Your task to perform on an android device: change timer sound Image 0: 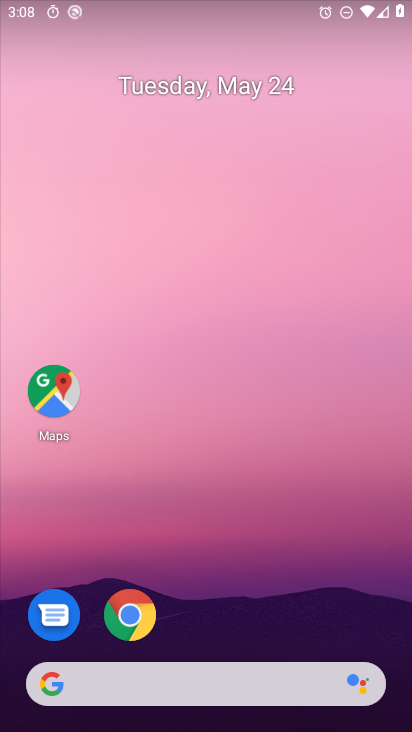
Step 0: drag from (231, 651) to (263, 168)
Your task to perform on an android device: change timer sound Image 1: 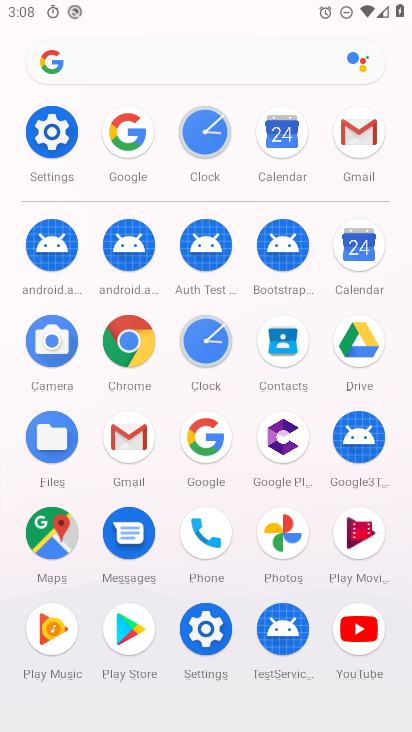
Step 1: click (212, 346)
Your task to perform on an android device: change timer sound Image 2: 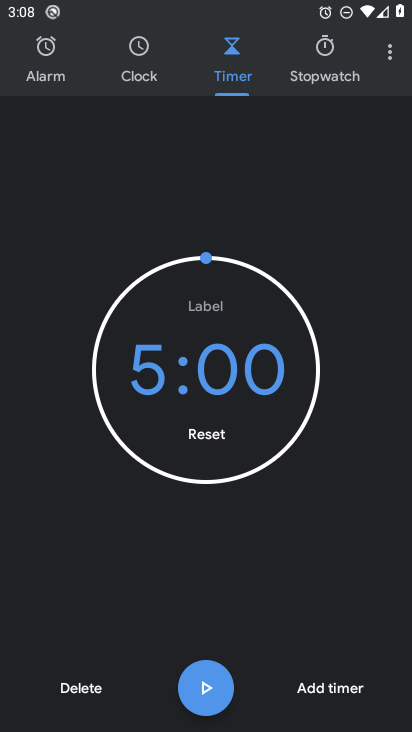
Step 2: click (394, 52)
Your task to perform on an android device: change timer sound Image 3: 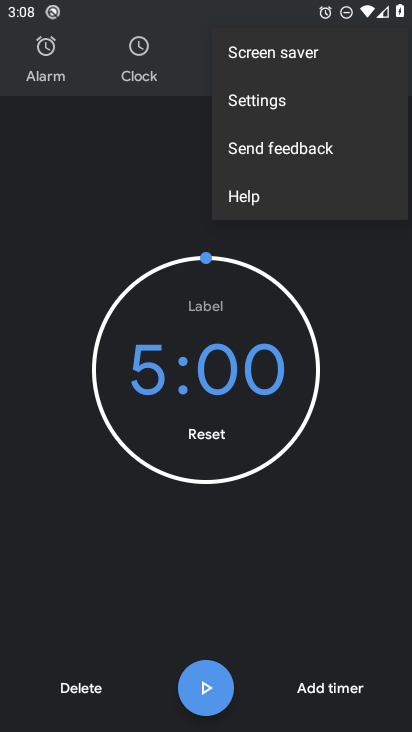
Step 3: click (263, 99)
Your task to perform on an android device: change timer sound Image 4: 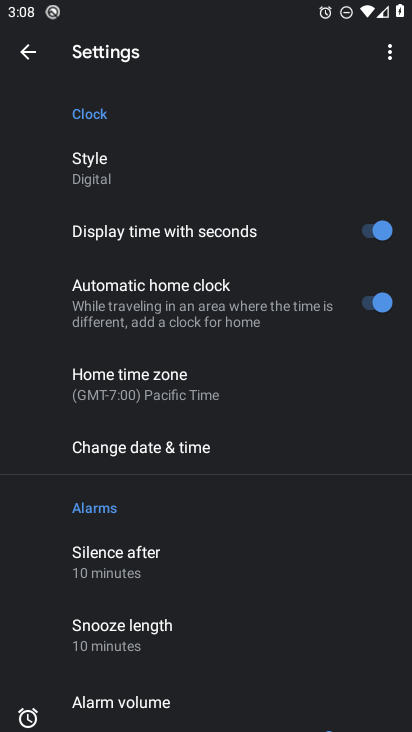
Step 4: drag from (124, 698) to (118, 326)
Your task to perform on an android device: change timer sound Image 5: 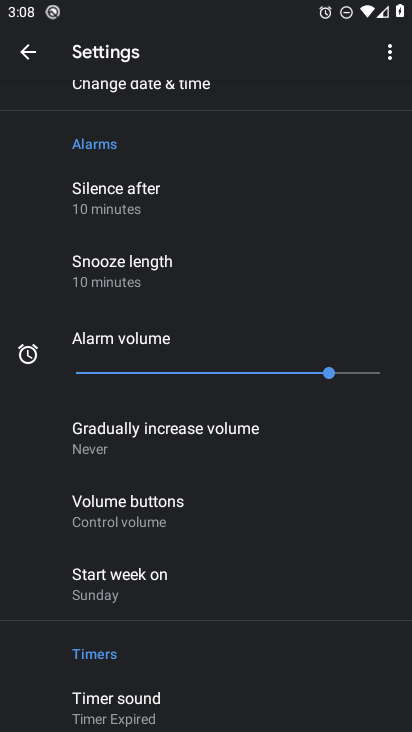
Step 5: drag from (142, 595) to (139, 270)
Your task to perform on an android device: change timer sound Image 6: 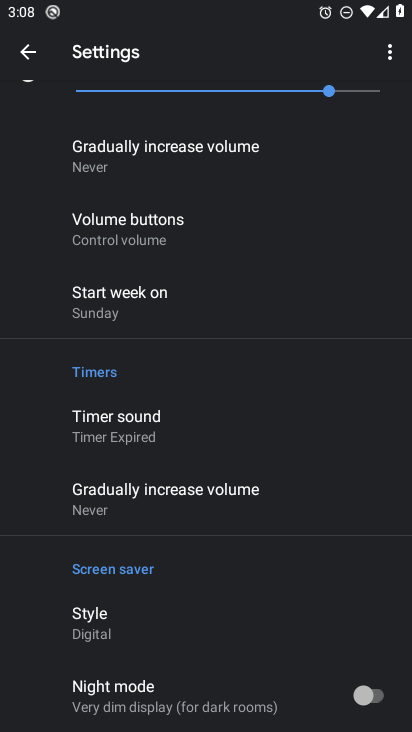
Step 6: drag from (132, 624) to (147, 248)
Your task to perform on an android device: change timer sound Image 7: 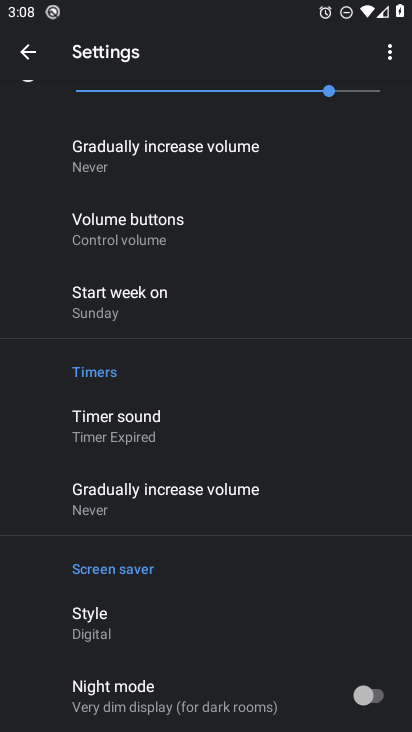
Step 7: drag from (140, 710) to (140, 476)
Your task to perform on an android device: change timer sound Image 8: 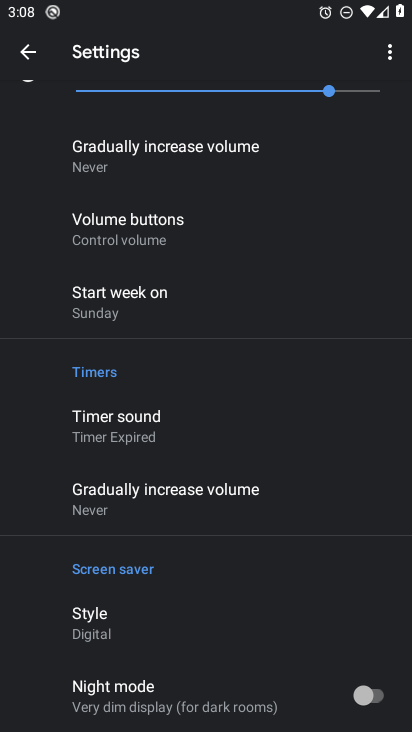
Step 8: drag from (189, 203) to (196, 582)
Your task to perform on an android device: change timer sound Image 9: 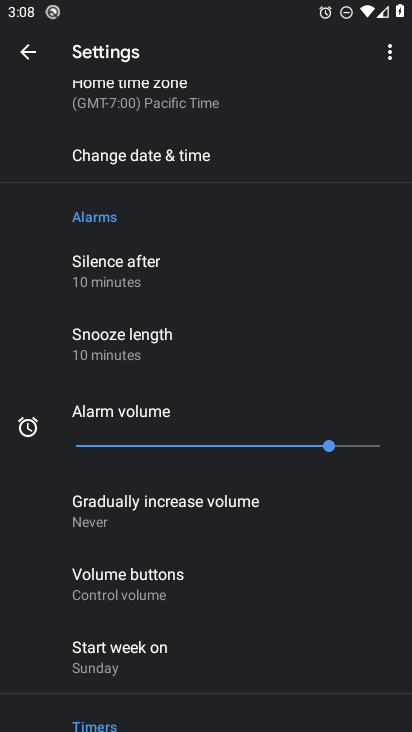
Step 9: drag from (218, 279) to (196, 553)
Your task to perform on an android device: change timer sound Image 10: 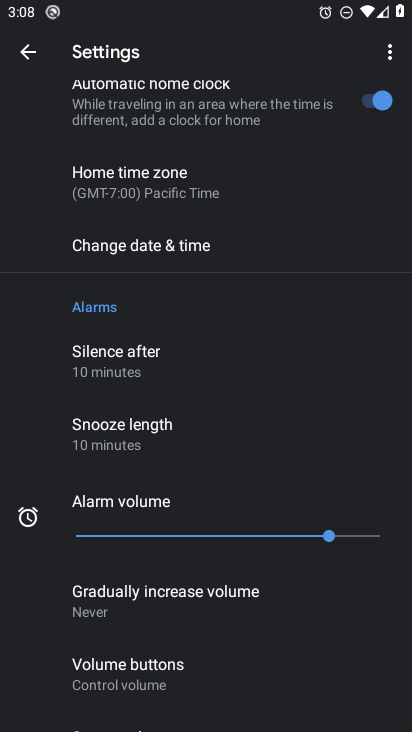
Step 10: drag from (220, 157) to (229, 602)
Your task to perform on an android device: change timer sound Image 11: 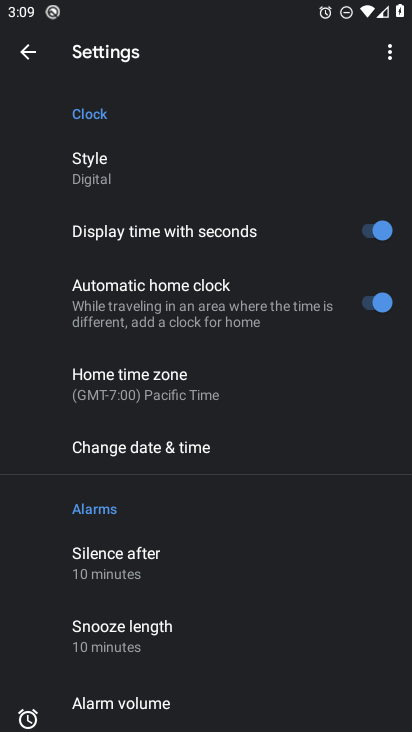
Step 11: drag from (175, 678) to (163, 338)
Your task to perform on an android device: change timer sound Image 12: 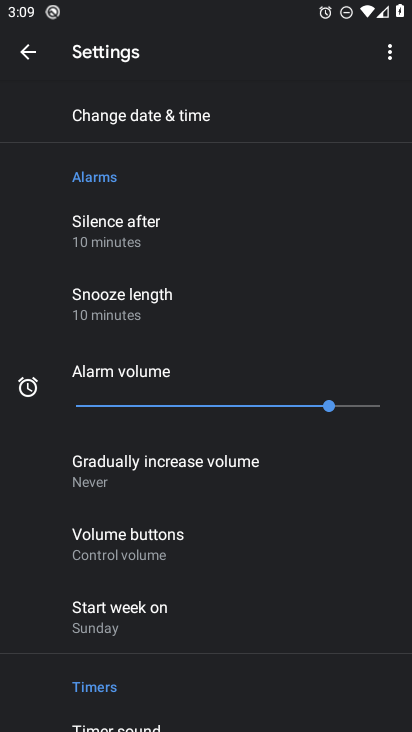
Step 12: drag from (143, 668) to (150, 372)
Your task to perform on an android device: change timer sound Image 13: 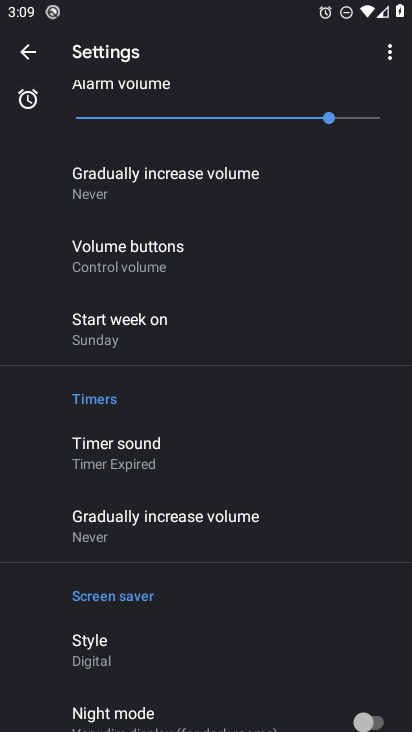
Step 13: click (135, 444)
Your task to perform on an android device: change timer sound Image 14: 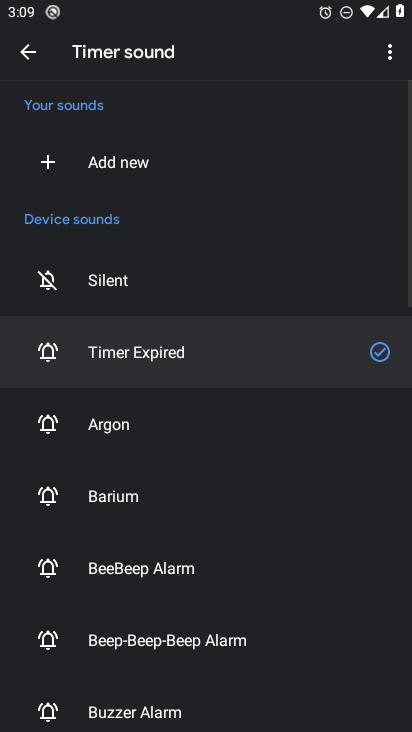
Step 14: click (127, 428)
Your task to perform on an android device: change timer sound Image 15: 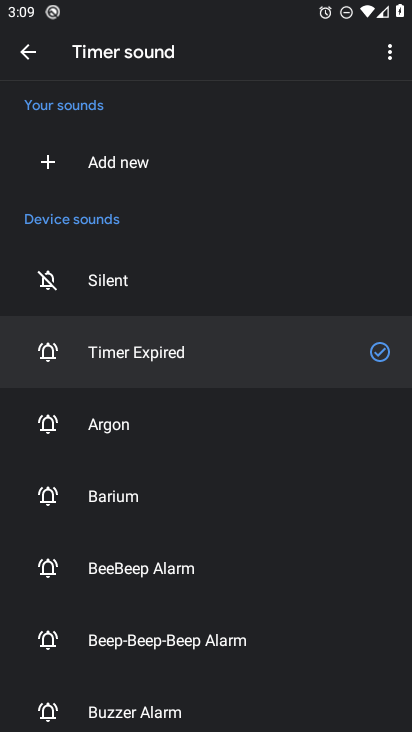
Step 15: click (105, 434)
Your task to perform on an android device: change timer sound Image 16: 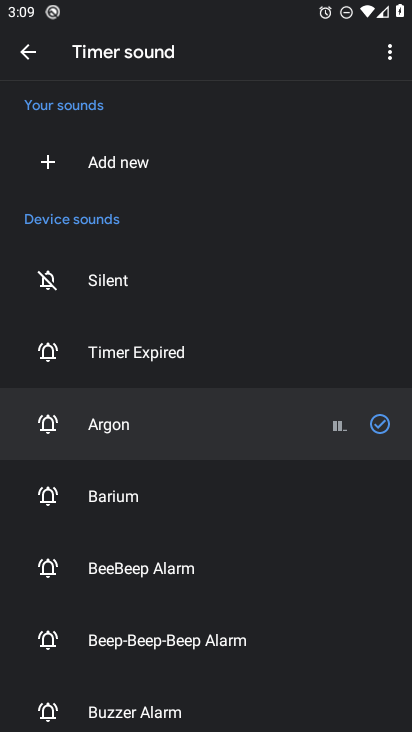
Step 16: task complete